Your task to perform on an android device: see sites visited before in the chrome app Image 0: 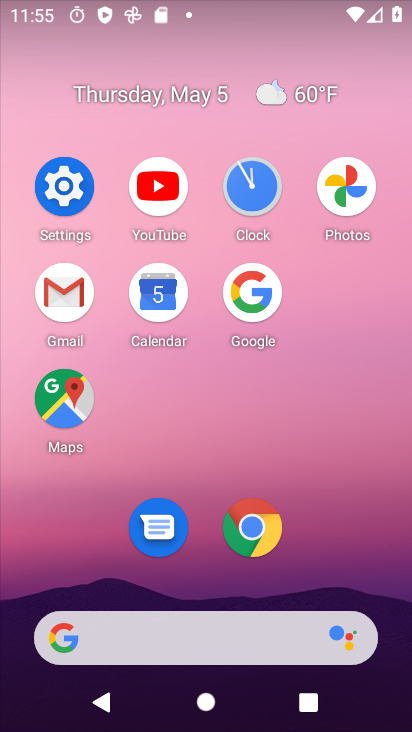
Step 0: click (253, 554)
Your task to perform on an android device: see sites visited before in the chrome app Image 1: 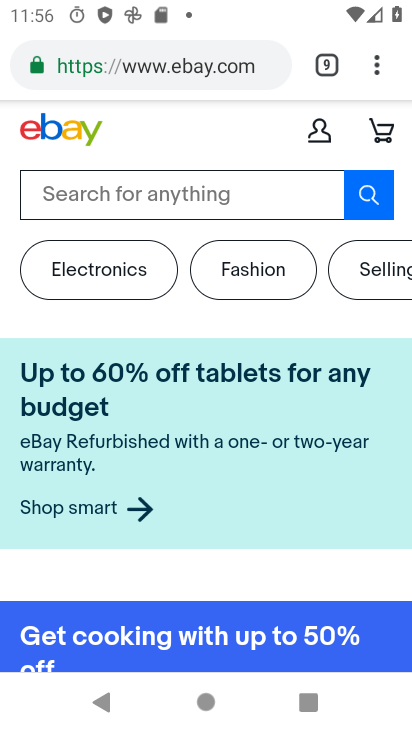
Step 1: press home button
Your task to perform on an android device: see sites visited before in the chrome app Image 2: 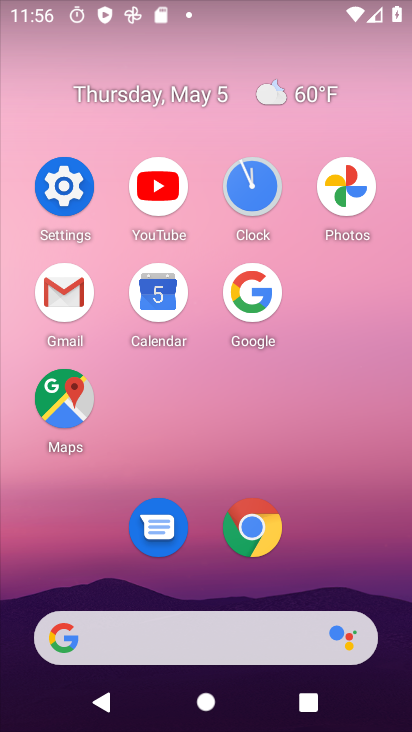
Step 2: click (253, 530)
Your task to perform on an android device: see sites visited before in the chrome app Image 3: 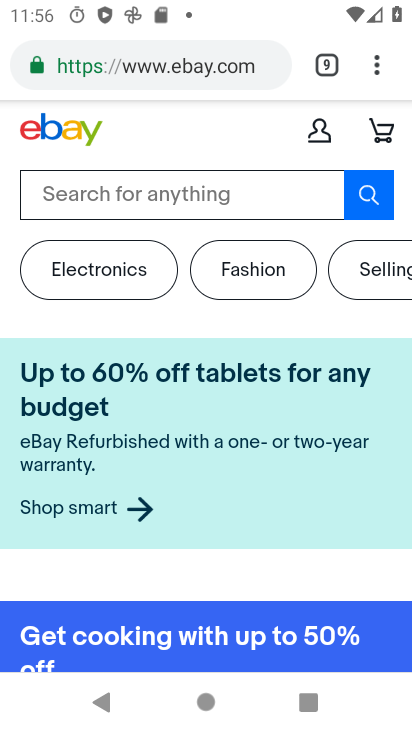
Step 3: click (377, 72)
Your task to perform on an android device: see sites visited before in the chrome app Image 4: 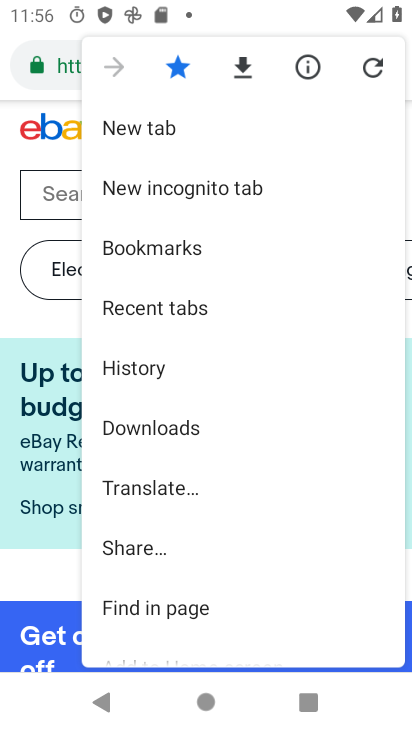
Step 4: click (245, 314)
Your task to perform on an android device: see sites visited before in the chrome app Image 5: 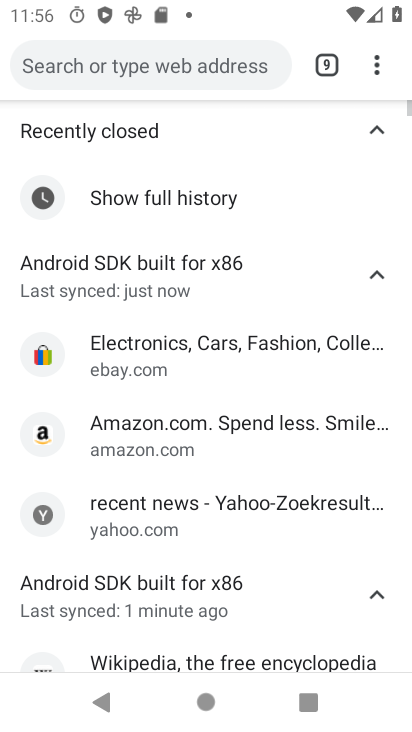
Step 5: task complete